Your task to perform on an android device: Open the calendar app, open the side menu, and click the "Day" option Image 0: 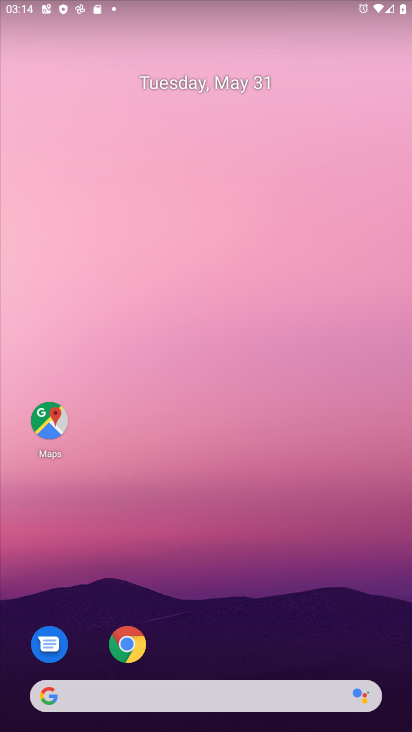
Step 0: drag from (264, 615) to (231, 178)
Your task to perform on an android device: Open the calendar app, open the side menu, and click the "Day" option Image 1: 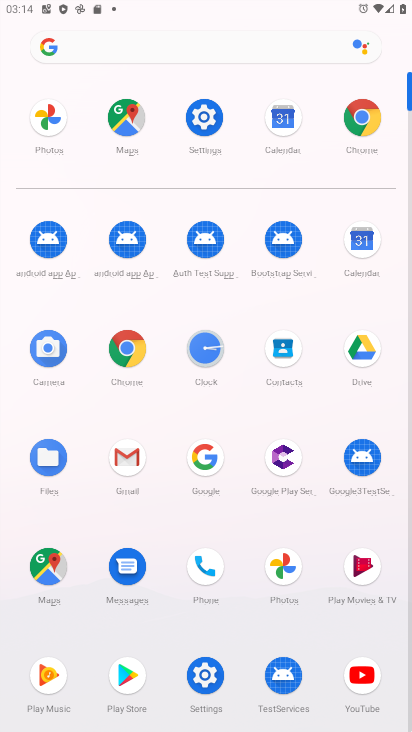
Step 1: click (356, 246)
Your task to perform on an android device: Open the calendar app, open the side menu, and click the "Day" option Image 2: 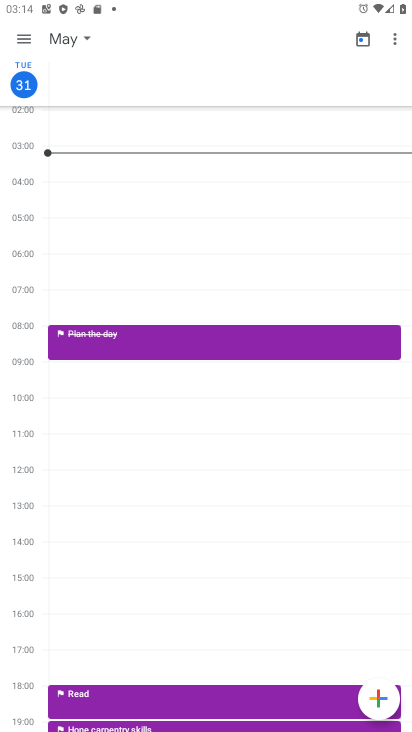
Step 2: click (25, 34)
Your task to perform on an android device: Open the calendar app, open the side menu, and click the "Day" option Image 3: 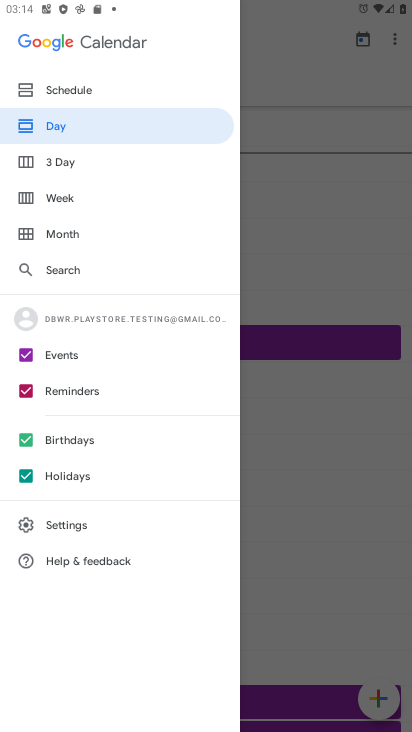
Step 3: click (73, 122)
Your task to perform on an android device: Open the calendar app, open the side menu, and click the "Day" option Image 4: 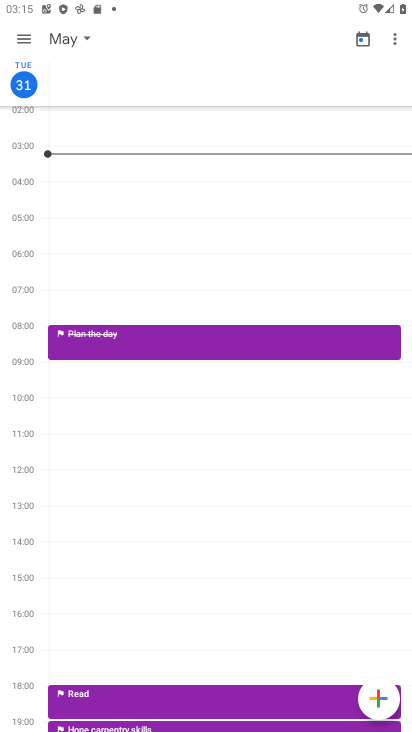
Step 4: task complete